Your task to perform on an android device: Is it going to rain this weekend? Image 0: 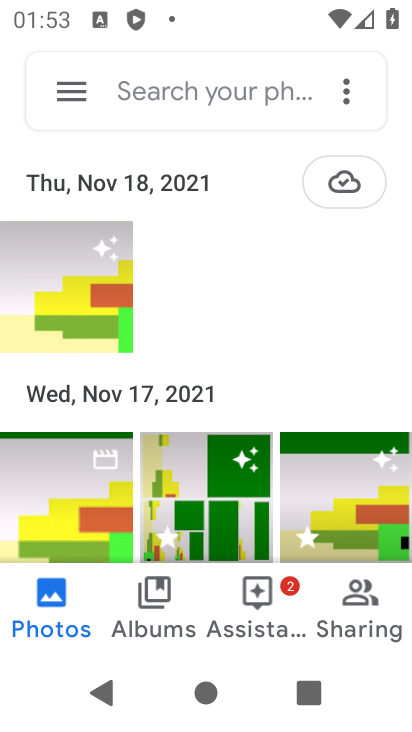
Step 0: press home button
Your task to perform on an android device: Is it going to rain this weekend? Image 1: 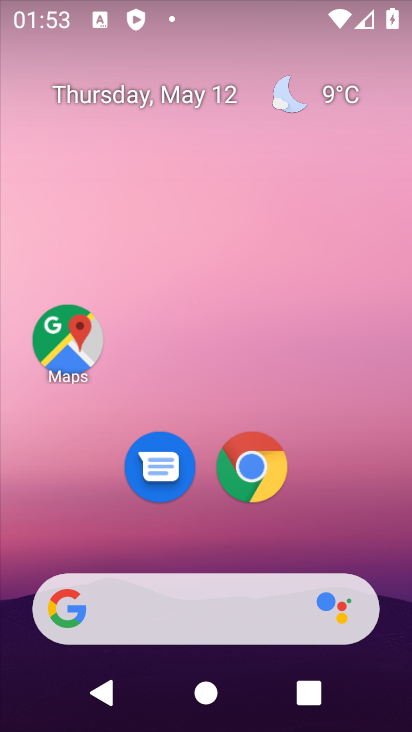
Step 1: drag from (318, 535) to (276, 181)
Your task to perform on an android device: Is it going to rain this weekend? Image 2: 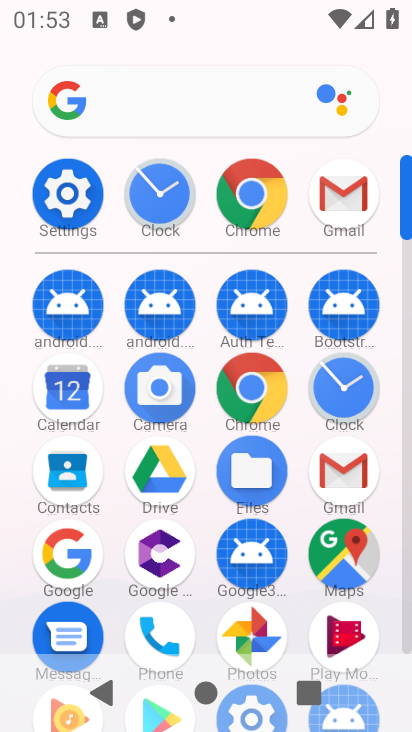
Step 2: click (240, 202)
Your task to perform on an android device: Is it going to rain this weekend? Image 3: 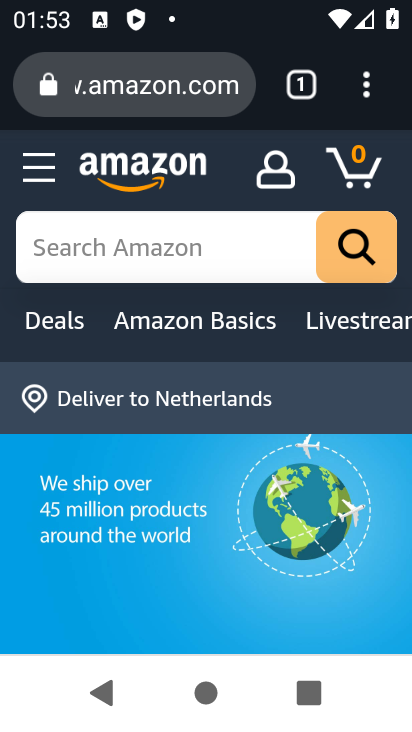
Step 3: click (351, 81)
Your task to perform on an android device: Is it going to rain this weekend? Image 4: 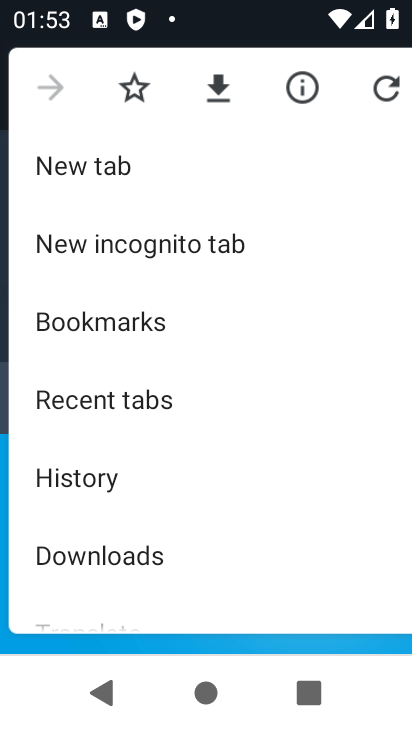
Step 4: click (117, 166)
Your task to perform on an android device: Is it going to rain this weekend? Image 5: 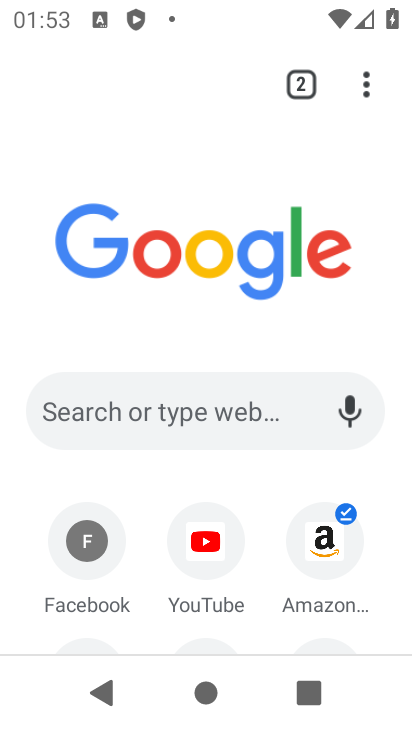
Step 5: click (147, 381)
Your task to perform on an android device: Is it going to rain this weekend? Image 6: 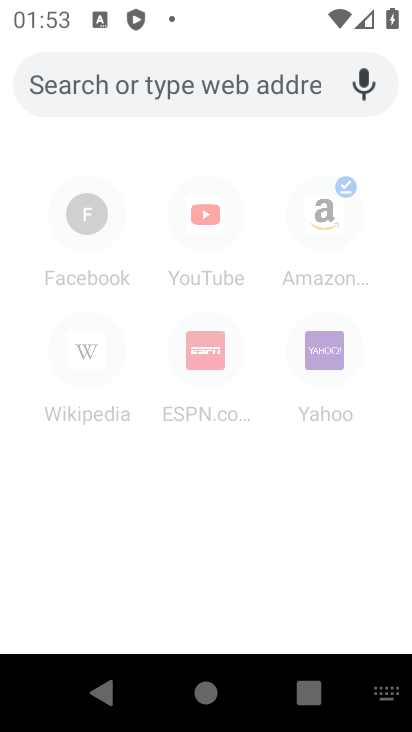
Step 6: type "Is it going to rain this weekend?"
Your task to perform on an android device: Is it going to rain this weekend? Image 7: 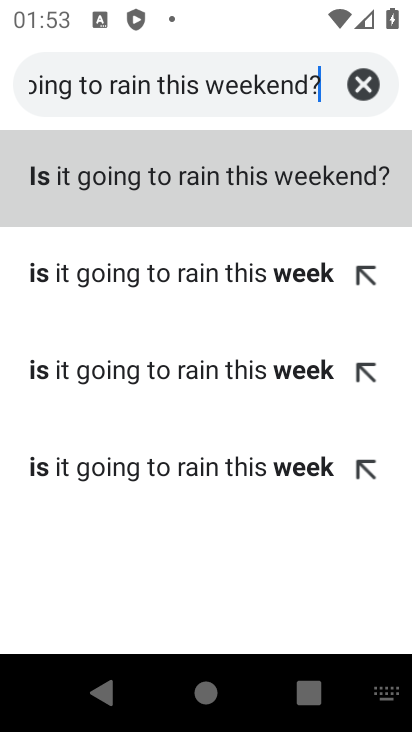
Step 7: click (197, 157)
Your task to perform on an android device: Is it going to rain this weekend? Image 8: 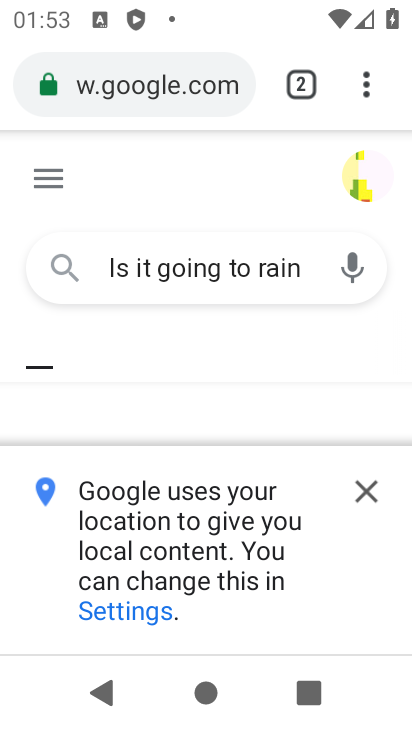
Step 8: click (377, 491)
Your task to perform on an android device: Is it going to rain this weekend? Image 9: 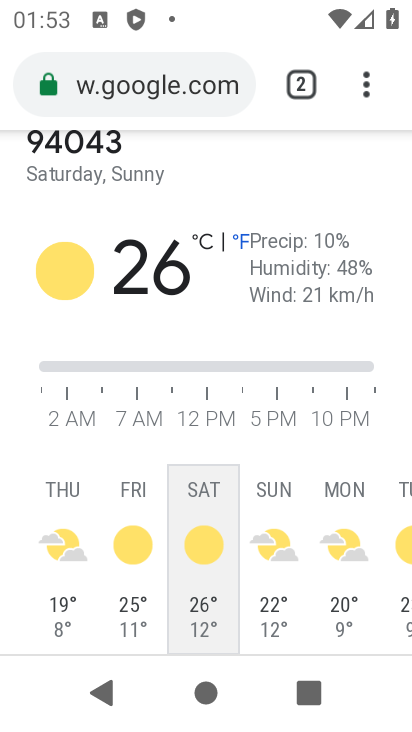
Step 9: task complete